Your task to perform on an android device: Open location settings Image 0: 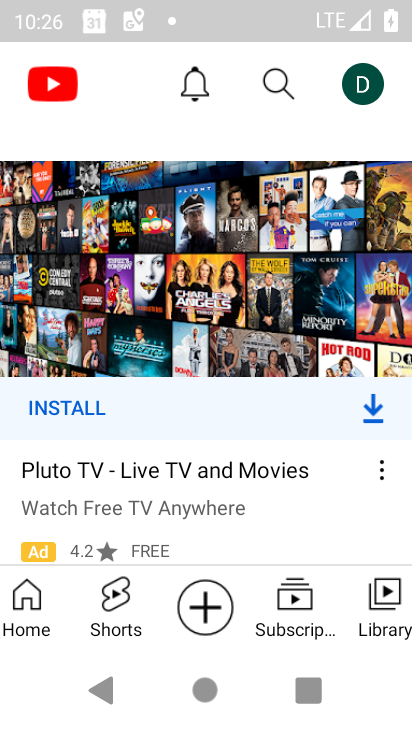
Step 0: press home button
Your task to perform on an android device: Open location settings Image 1: 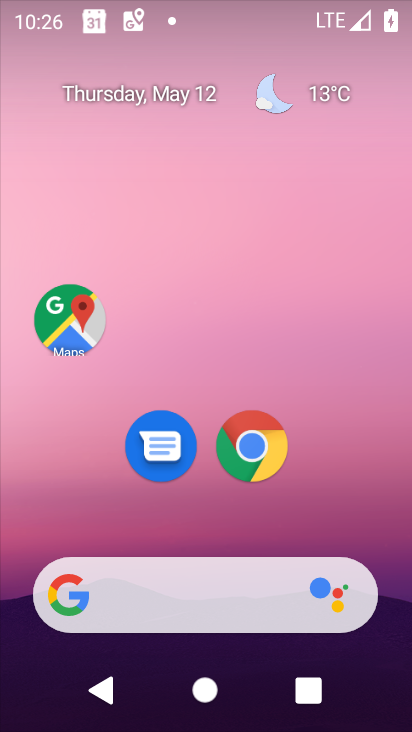
Step 1: drag from (265, 617) to (390, 6)
Your task to perform on an android device: Open location settings Image 2: 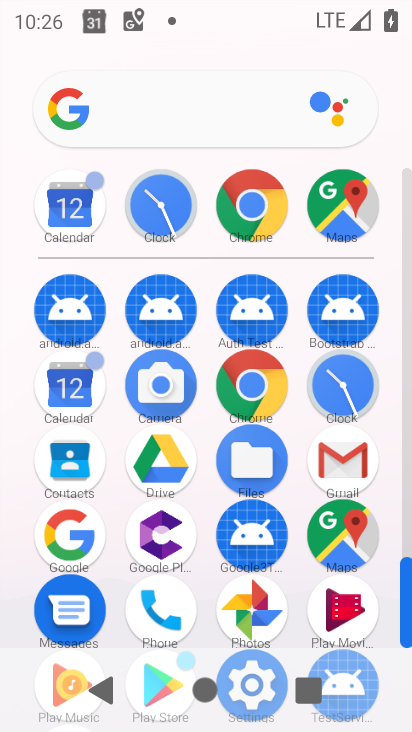
Step 2: drag from (291, 628) to (307, 360)
Your task to perform on an android device: Open location settings Image 3: 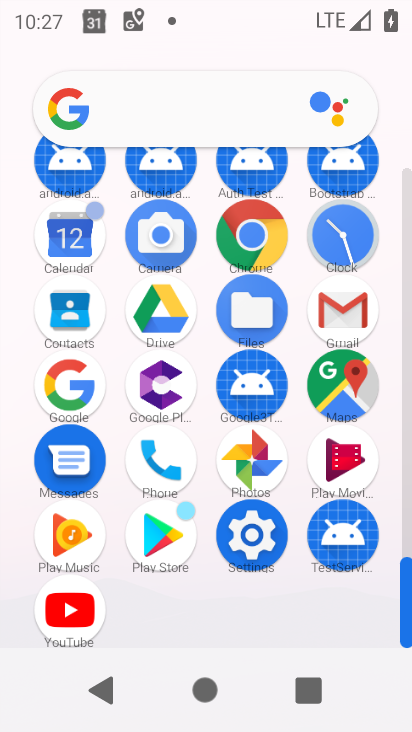
Step 3: click (250, 552)
Your task to perform on an android device: Open location settings Image 4: 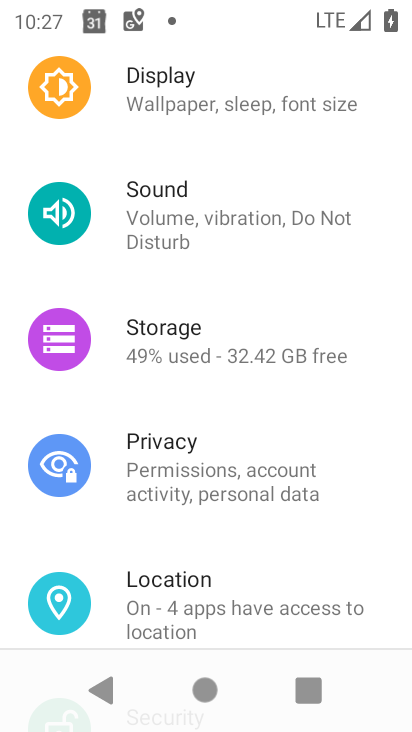
Step 4: click (265, 590)
Your task to perform on an android device: Open location settings Image 5: 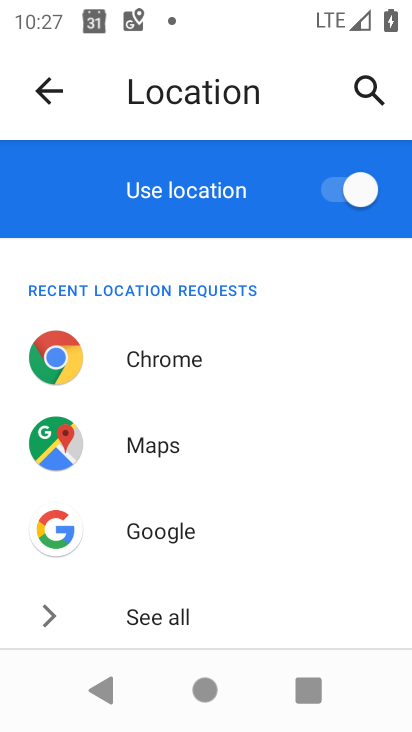
Step 5: task complete